Your task to perform on an android device: install app "Calculator" Image 0: 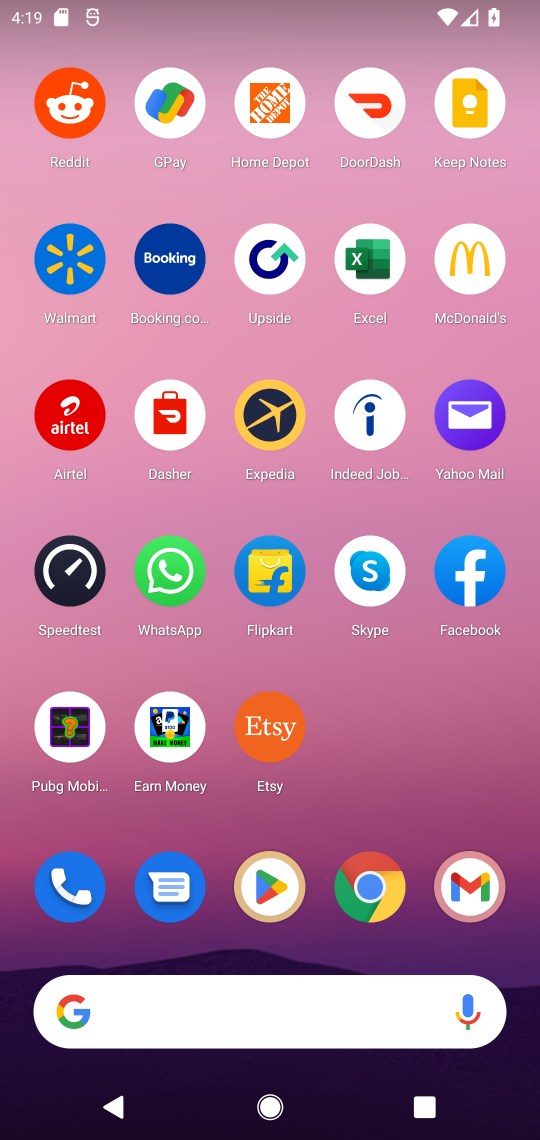
Step 0: drag from (306, 789) to (200, 36)
Your task to perform on an android device: install app "Calculator" Image 1: 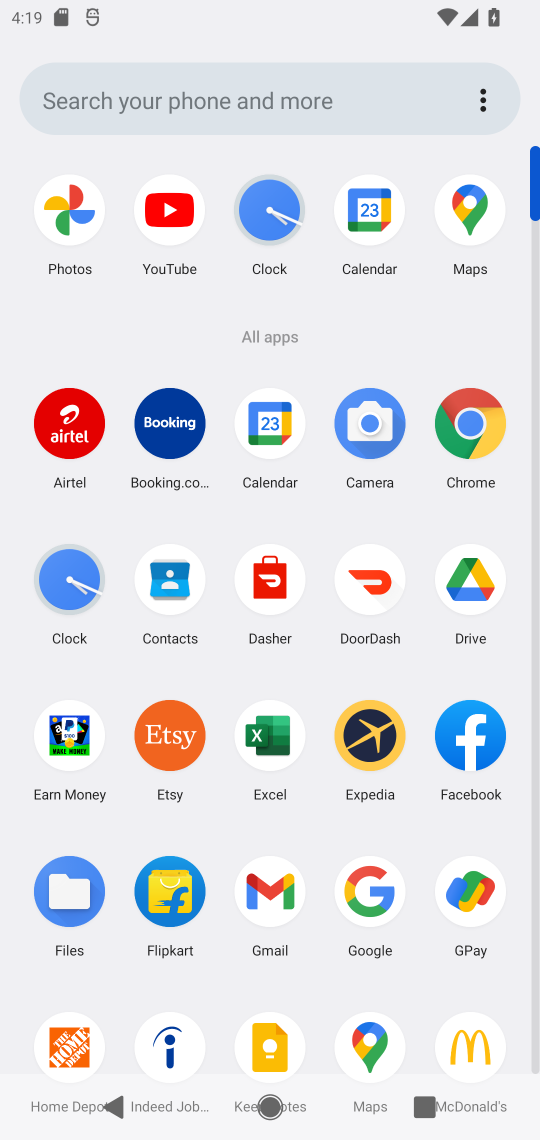
Step 1: drag from (196, 887) to (207, 189)
Your task to perform on an android device: install app "Calculator" Image 2: 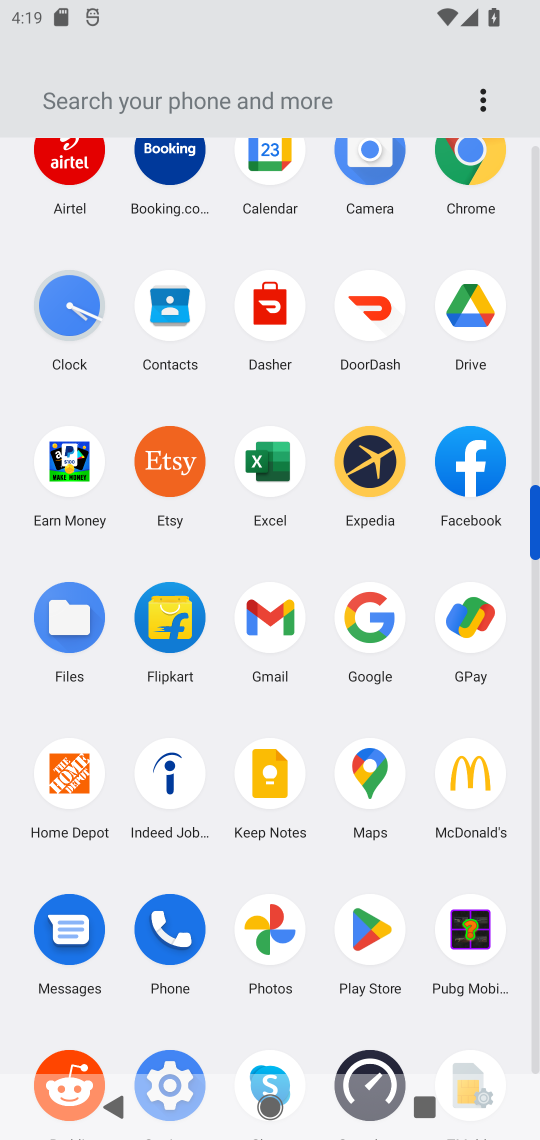
Step 2: drag from (227, 529) to (384, 1135)
Your task to perform on an android device: install app "Calculator" Image 3: 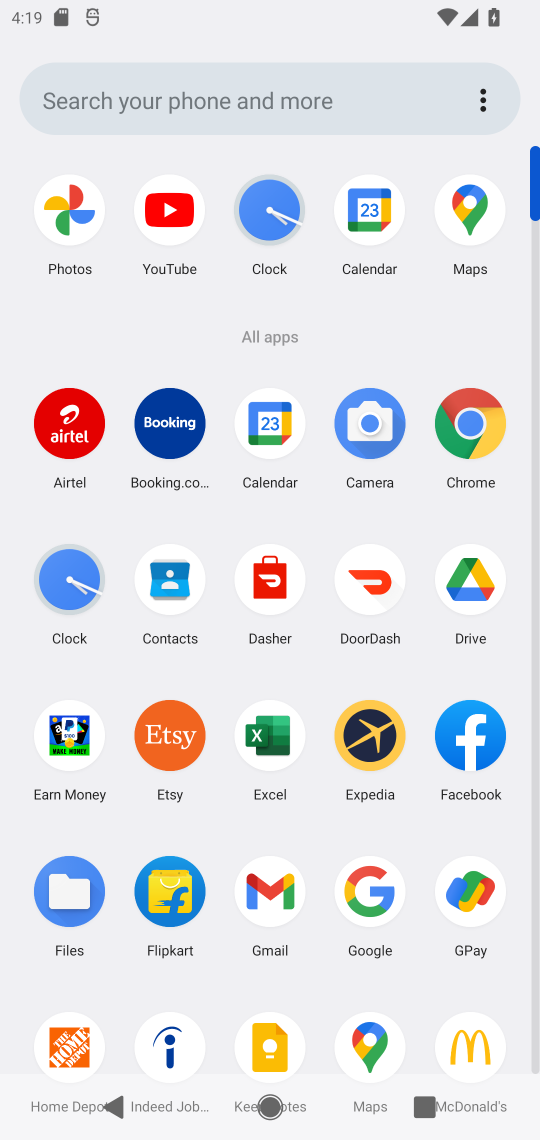
Step 3: click (205, 944)
Your task to perform on an android device: install app "Calculator" Image 4: 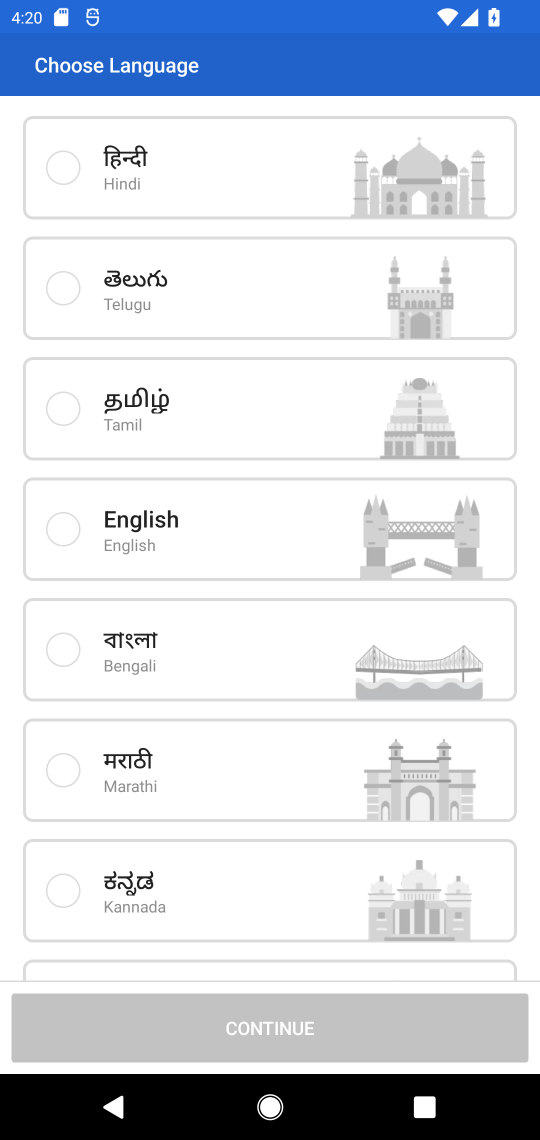
Step 4: press back button
Your task to perform on an android device: install app "Calculator" Image 5: 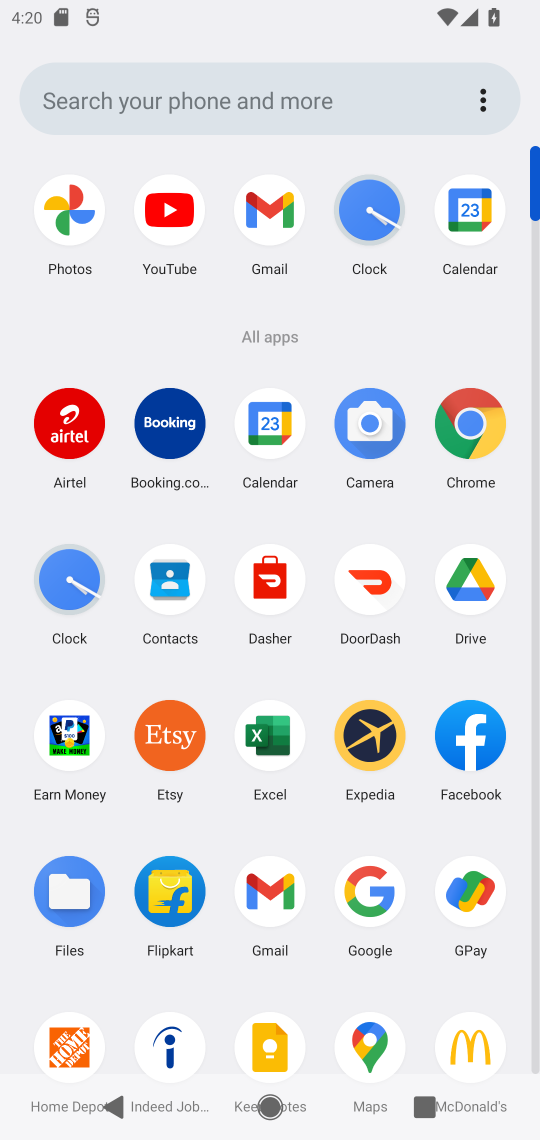
Step 5: click (269, 411)
Your task to perform on an android device: install app "Calculator" Image 6: 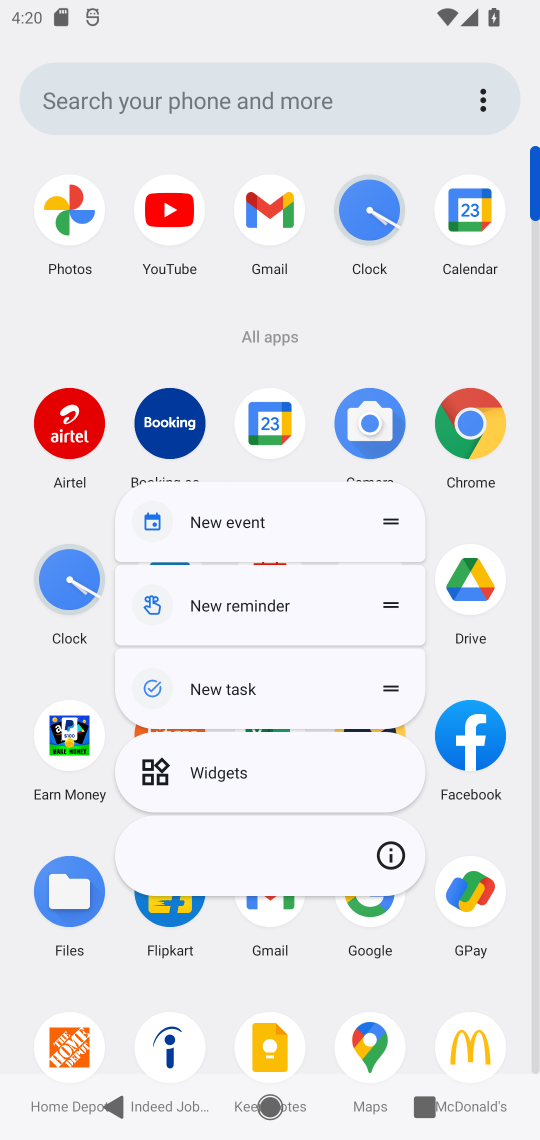
Step 6: press back button
Your task to perform on an android device: install app "Calculator" Image 7: 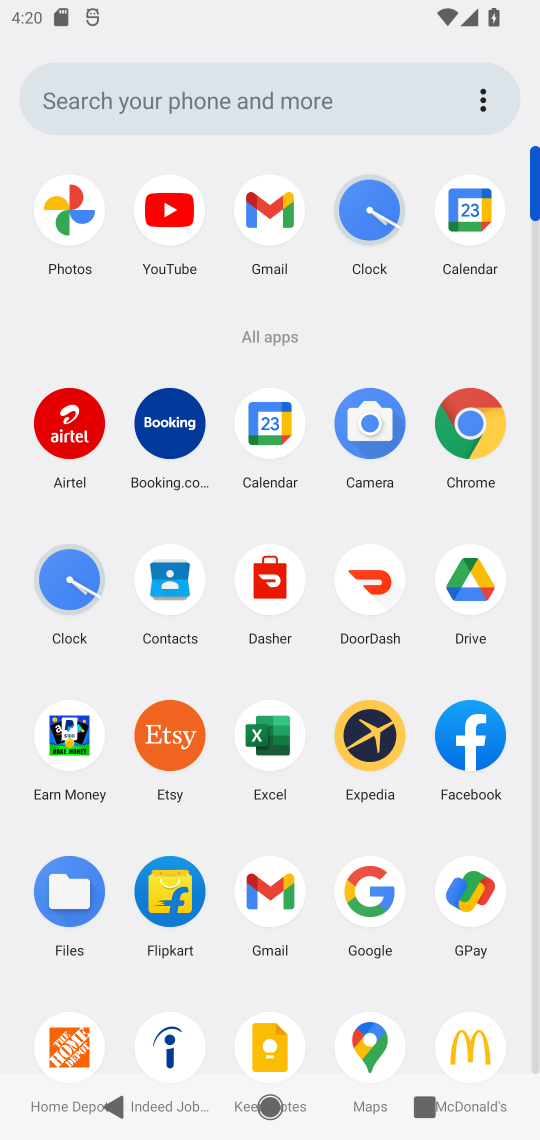
Step 7: drag from (209, 889) to (206, 342)
Your task to perform on an android device: install app "Calculator" Image 8: 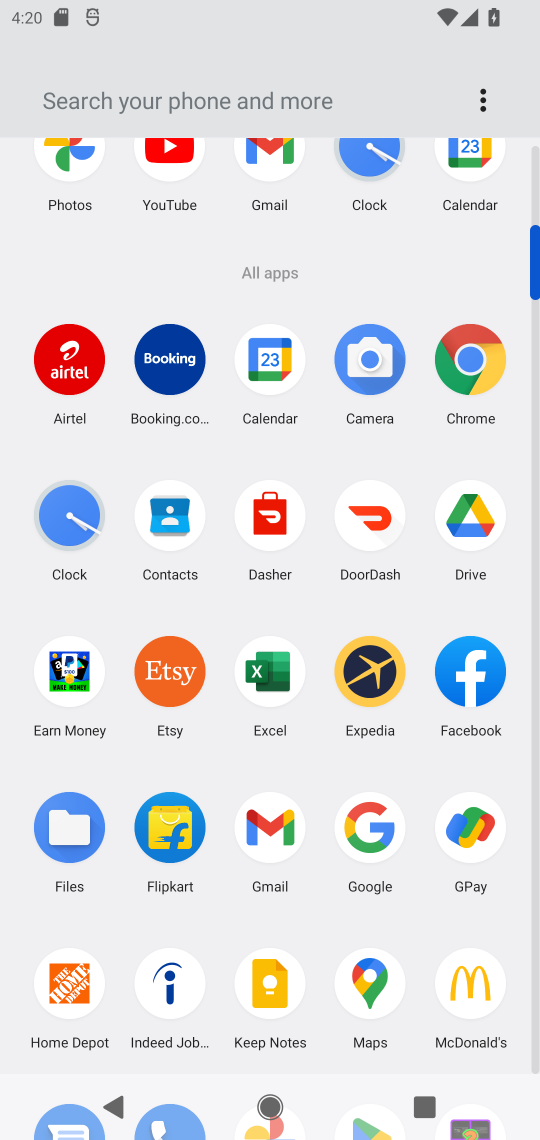
Step 8: drag from (232, 911) to (228, 296)
Your task to perform on an android device: install app "Calculator" Image 9: 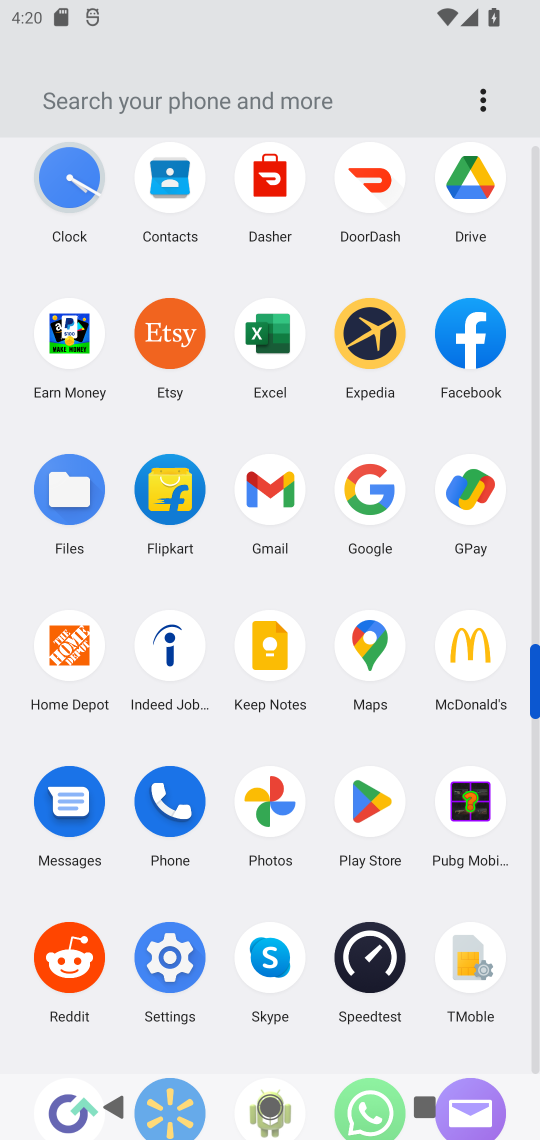
Step 9: drag from (210, 777) to (215, 110)
Your task to perform on an android device: install app "Calculator" Image 10: 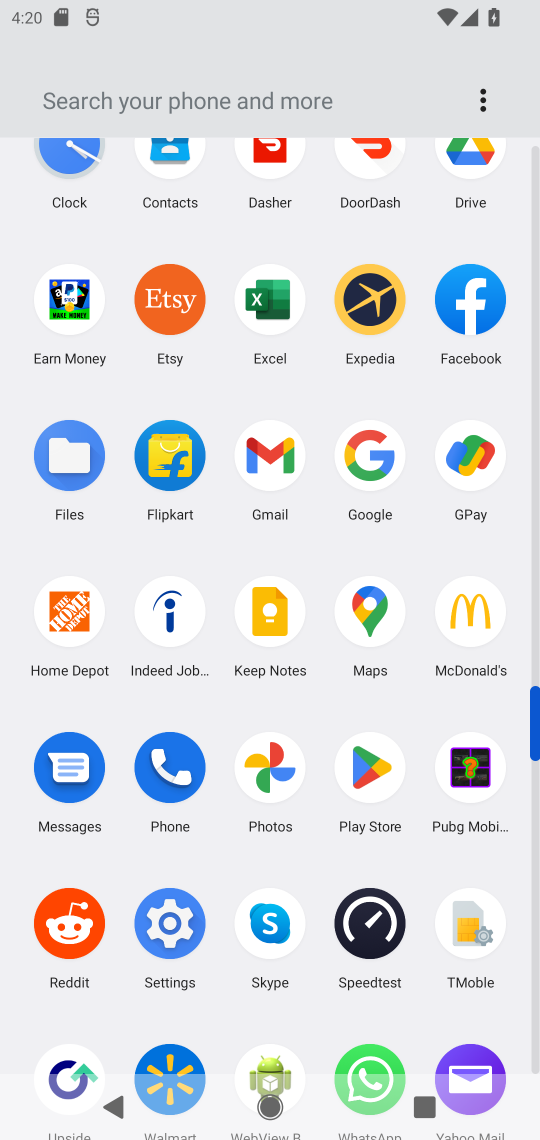
Step 10: click (356, 763)
Your task to perform on an android device: install app "Calculator" Image 11: 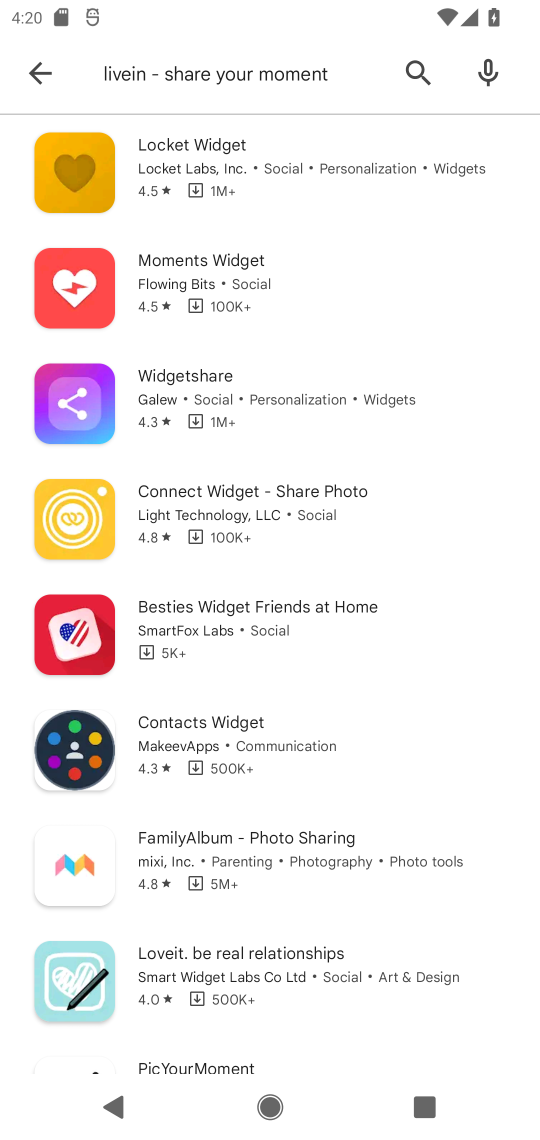
Step 11: click (404, 68)
Your task to perform on an android device: install app "Calculator" Image 12: 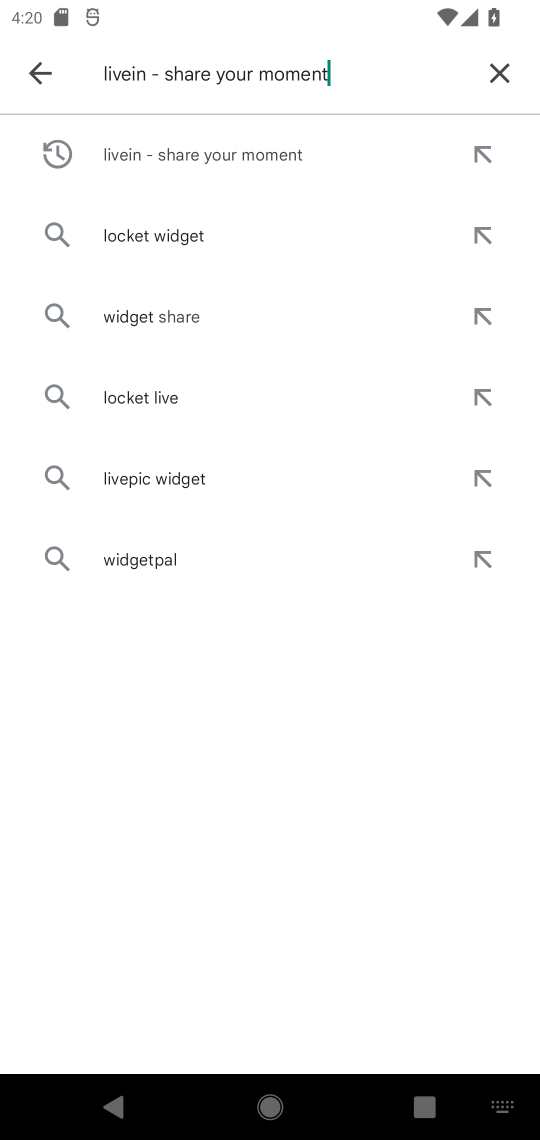
Step 12: click (499, 69)
Your task to perform on an android device: install app "Calculator" Image 13: 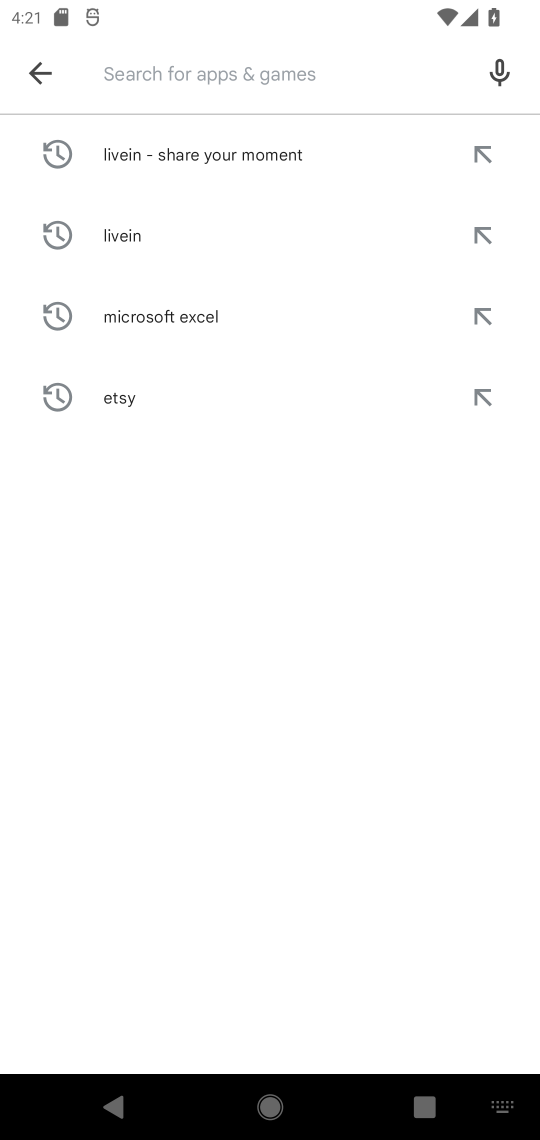
Step 13: type "Calculator"
Your task to perform on an android device: install app "Calculator" Image 14: 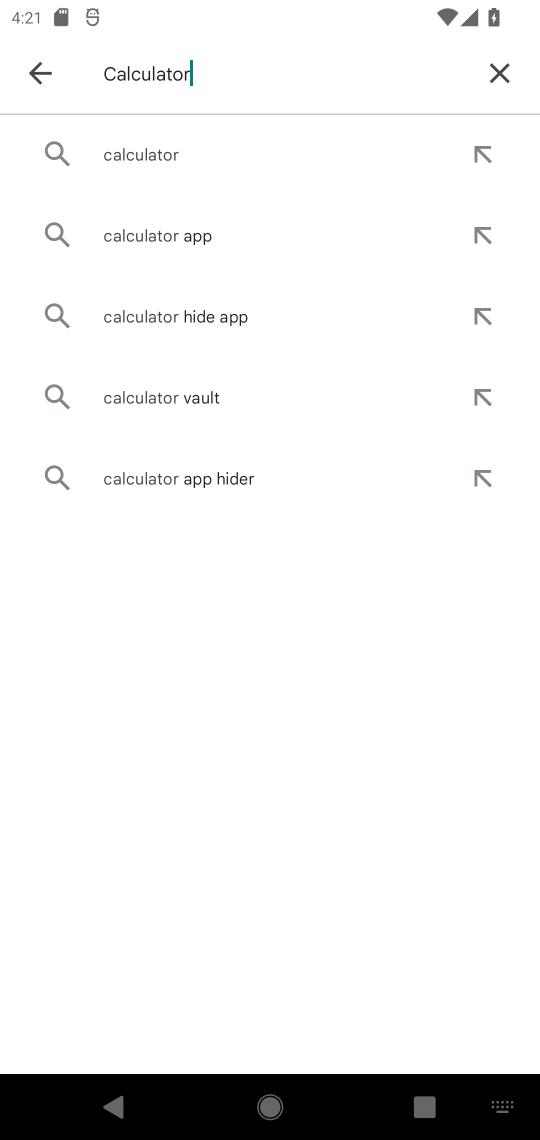
Step 14: click (124, 152)
Your task to perform on an android device: install app "Calculator" Image 15: 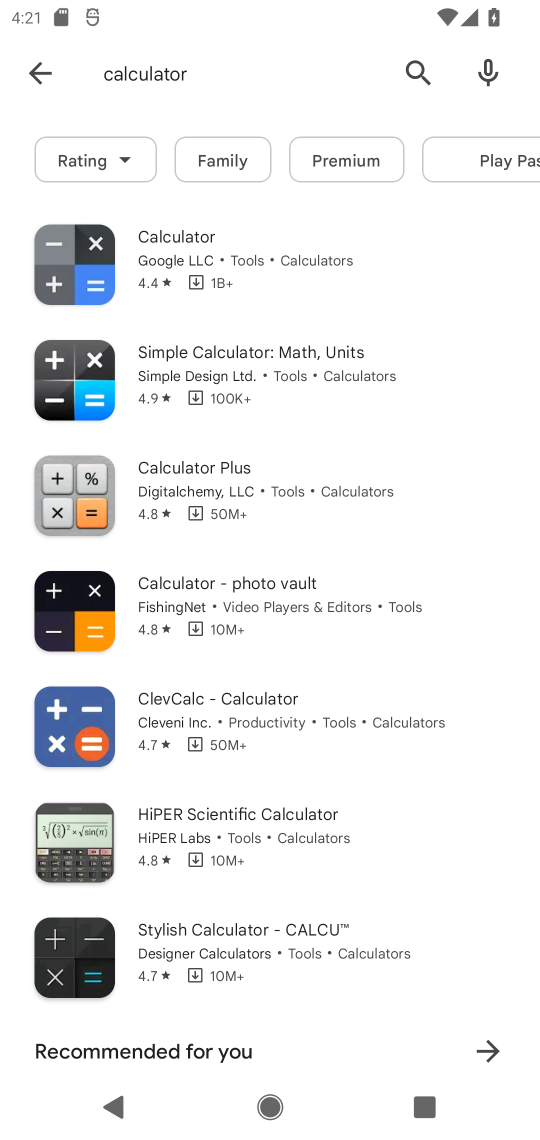
Step 15: click (150, 249)
Your task to perform on an android device: install app "Calculator" Image 16: 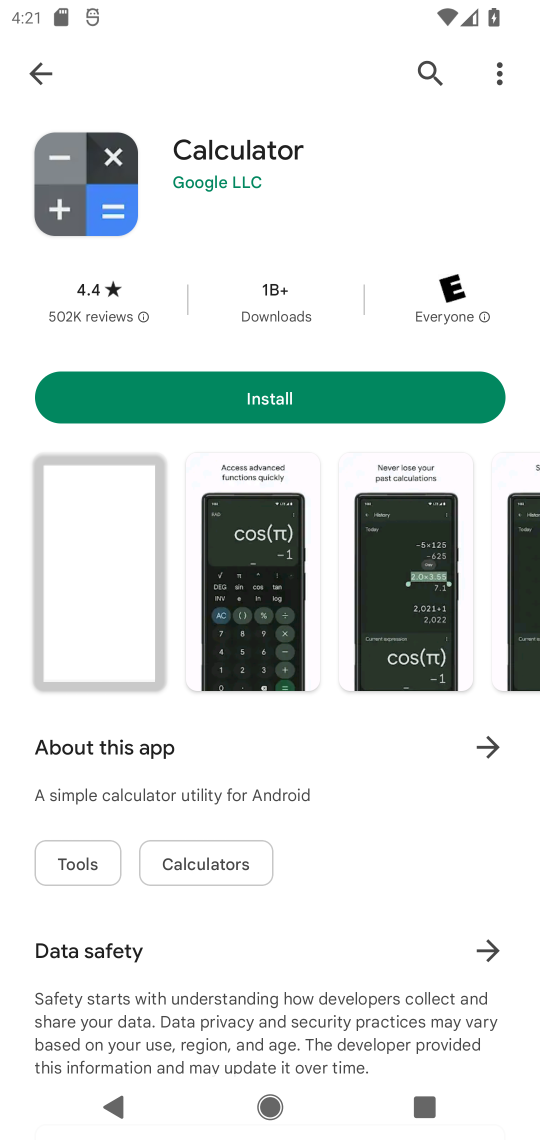
Step 16: click (266, 409)
Your task to perform on an android device: install app "Calculator" Image 17: 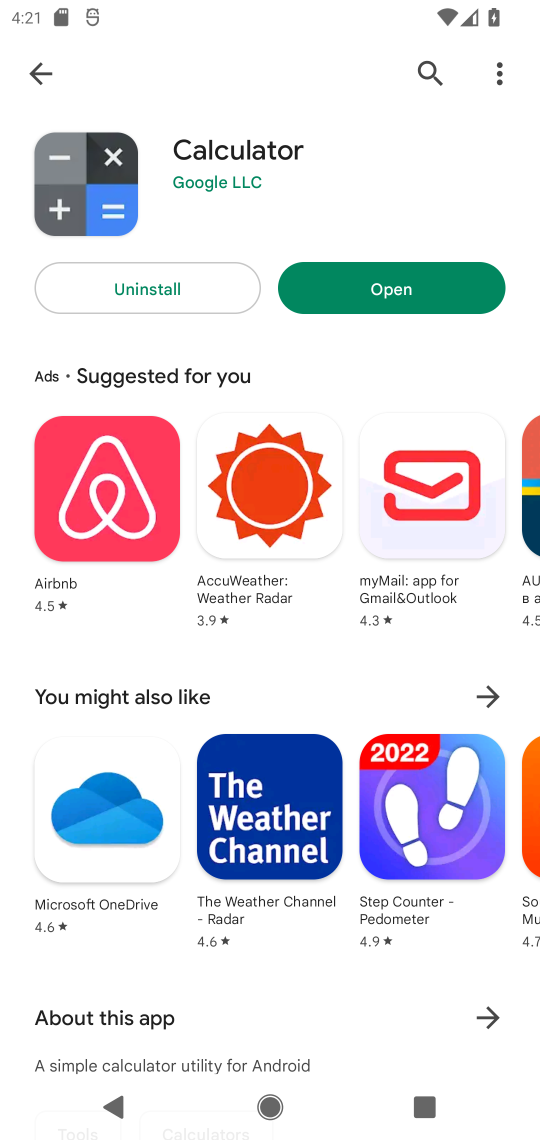
Step 17: click (399, 280)
Your task to perform on an android device: install app "Calculator" Image 18: 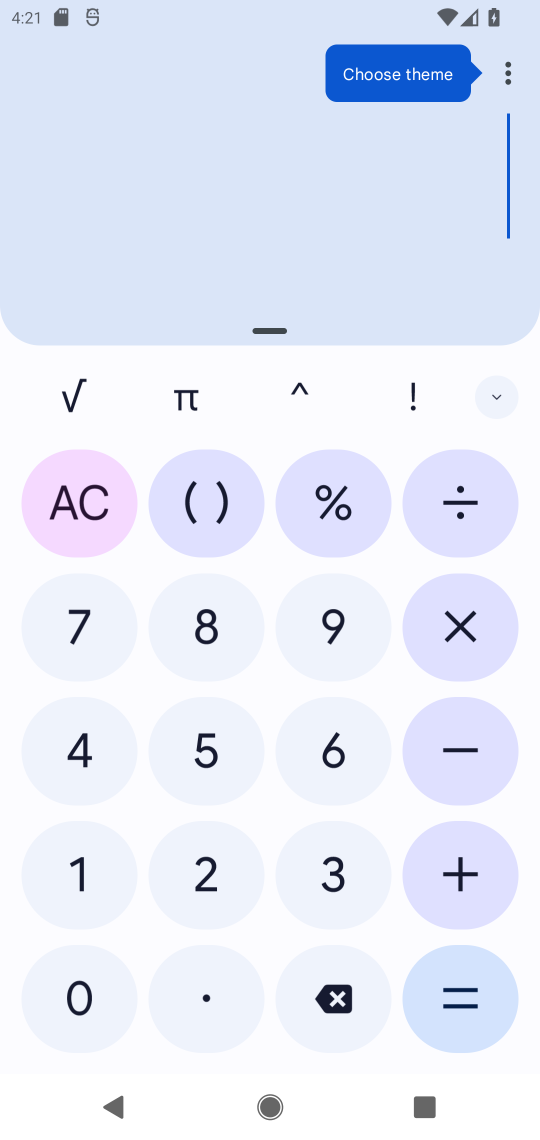
Step 18: task complete